Your task to perform on an android device: Go to sound settings Image 0: 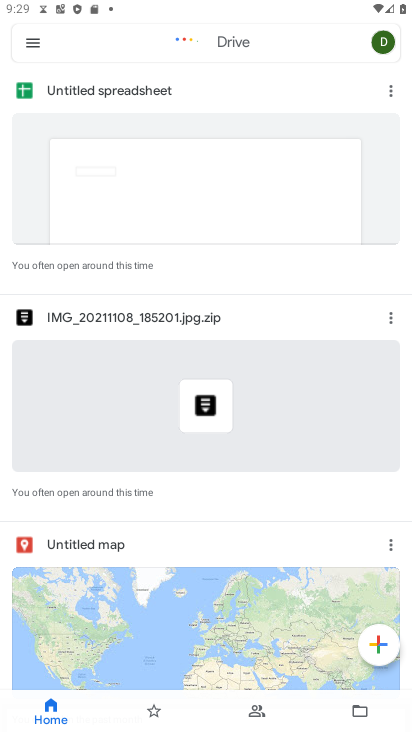
Step 0: press back button
Your task to perform on an android device: Go to sound settings Image 1: 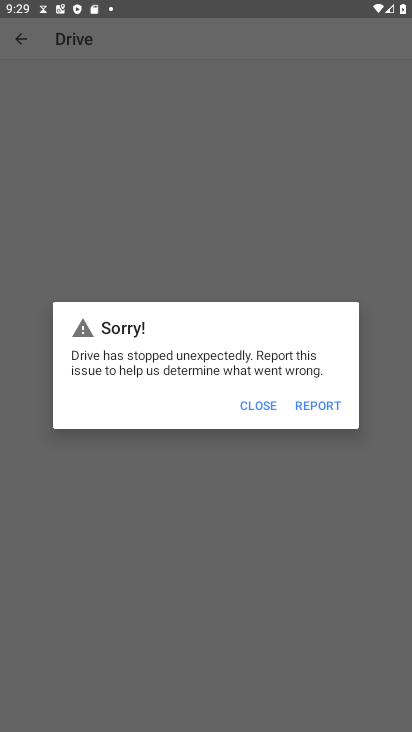
Step 1: press back button
Your task to perform on an android device: Go to sound settings Image 2: 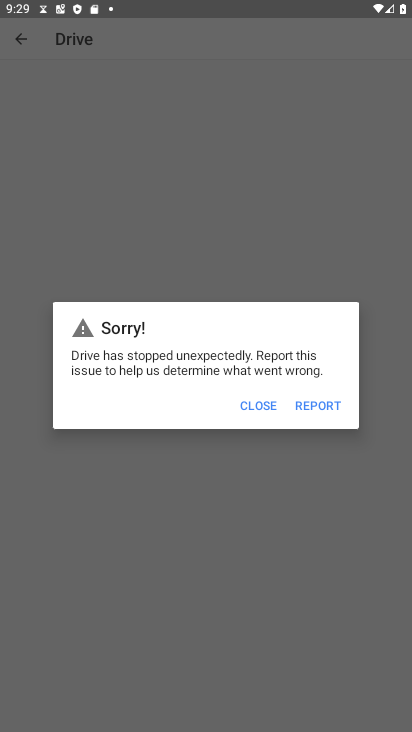
Step 2: press home button
Your task to perform on an android device: Go to sound settings Image 3: 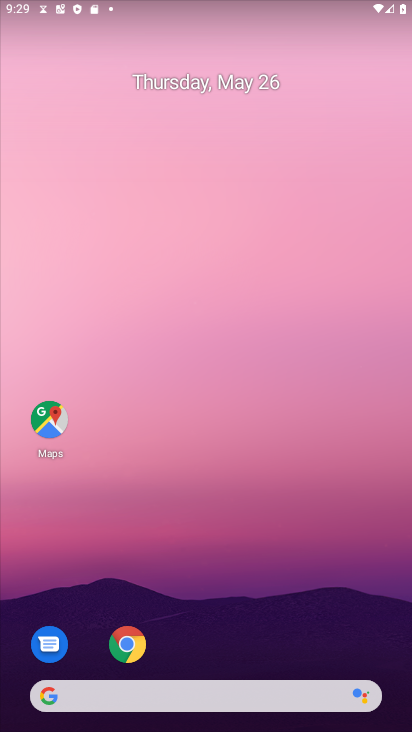
Step 3: drag from (206, 643) to (259, 119)
Your task to perform on an android device: Go to sound settings Image 4: 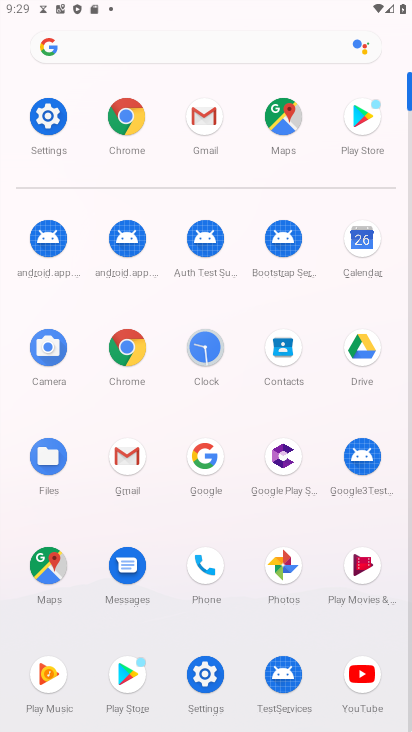
Step 4: click (40, 112)
Your task to perform on an android device: Go to sound settings Image 5: 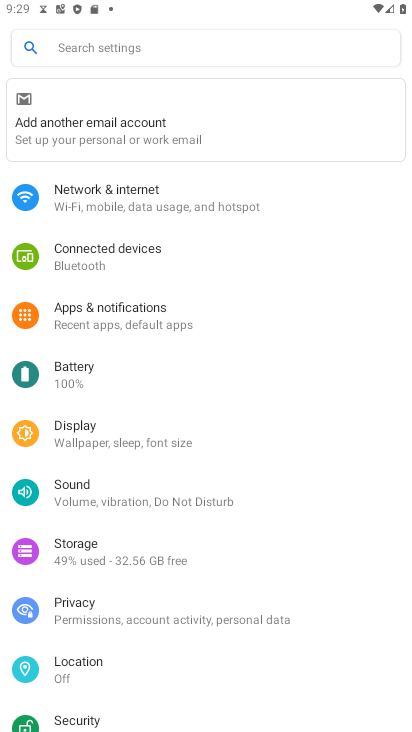
Step 5: click (68, 492)
Your task to perform on an android device: Go to sound settings Image 6: 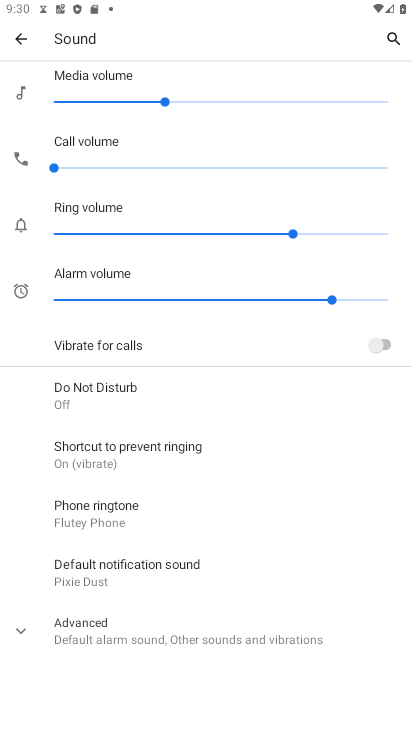
Step 6: task complete